Your task to perform on an android device: check data usage Image 0: 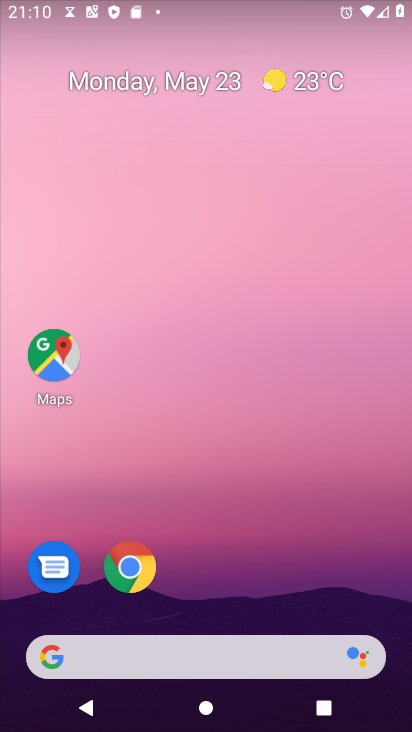
Step 0: drag from (225, 327) to (246, 188)
Your task to perform on an android device: check data usage Image 1: 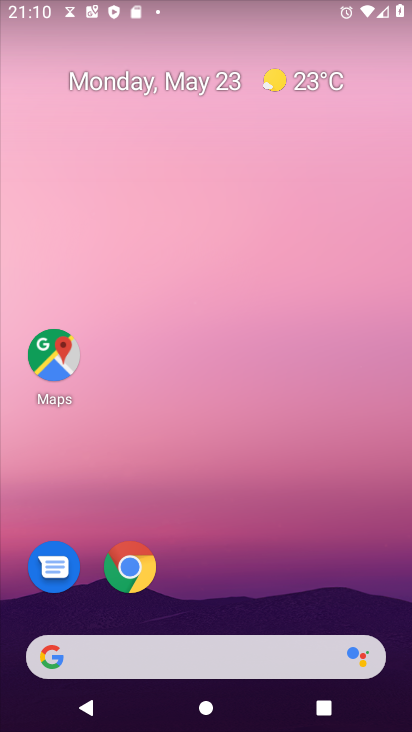
Step 1: drag from (264, 324) to (271, 259)
Your task to perform on an android device: check data usage Image 2: 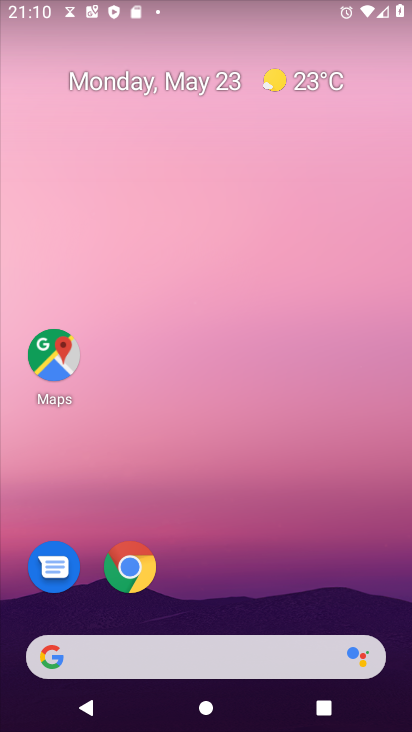
Step 2: drag from (212, 654) to (228, 186)
Your task to perform on an android device: check data usage Image 3: 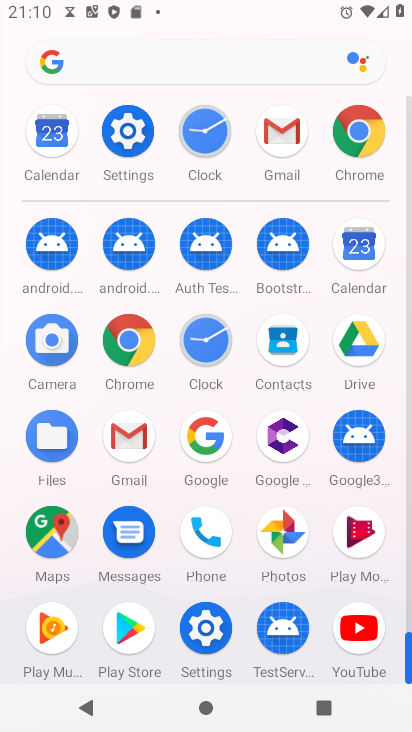
Step 3: click (117, 128)
Your task to perform on an android device: check data usage Image 4: 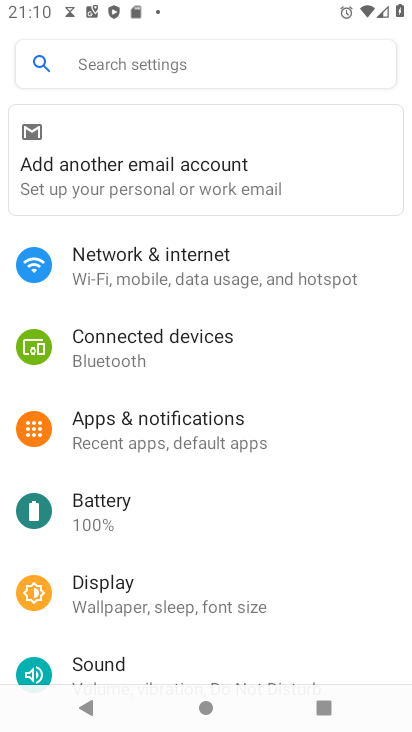
Step 4: click (151, 268)
Your task to perform on an android device: check data usage Image 5: 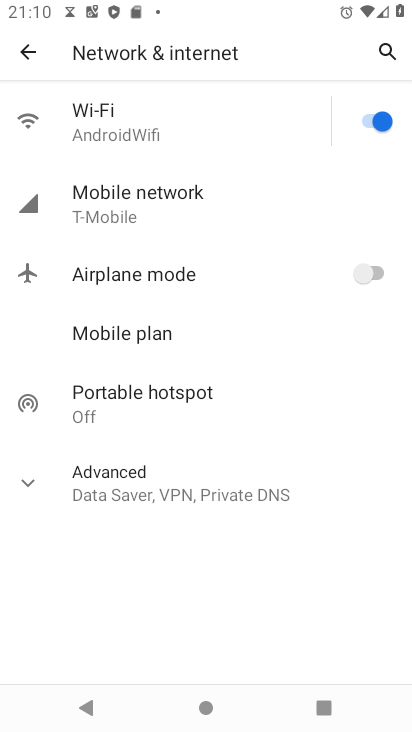
Step 5: click (149, 198)
Your task to perform on an android device: check data usage Image 6: 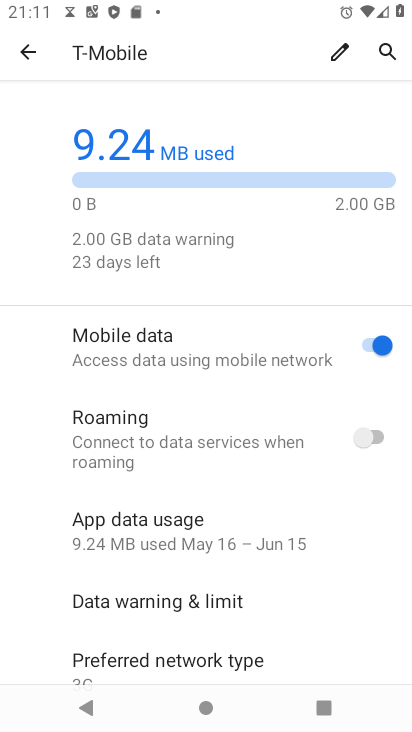
Step 6: task complete